Your task to perform on an android device: Go to calendar. Show me events next week Image 0: 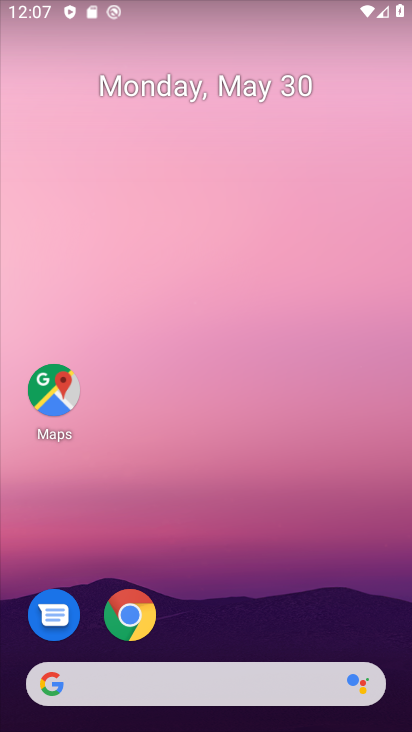
Step 0: drag from (219, 546) to (260, 78)
Your task to perform on an android device: Go to calendar. Show me events next week Image 1: 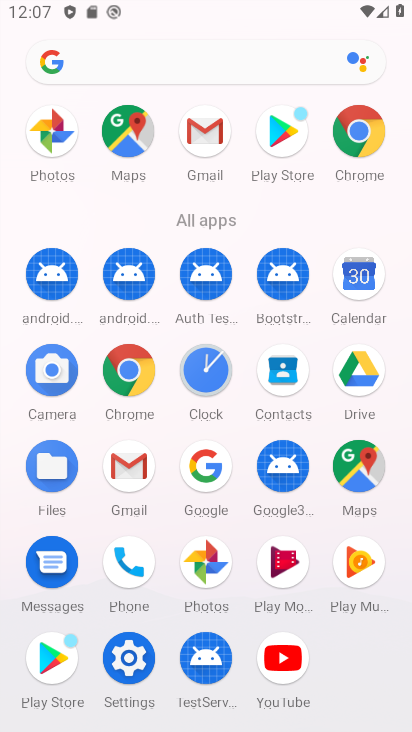
Step 1: click (367, 270)
Your task to perform on an android device: Go to calendar. Show me events next week Image 2: 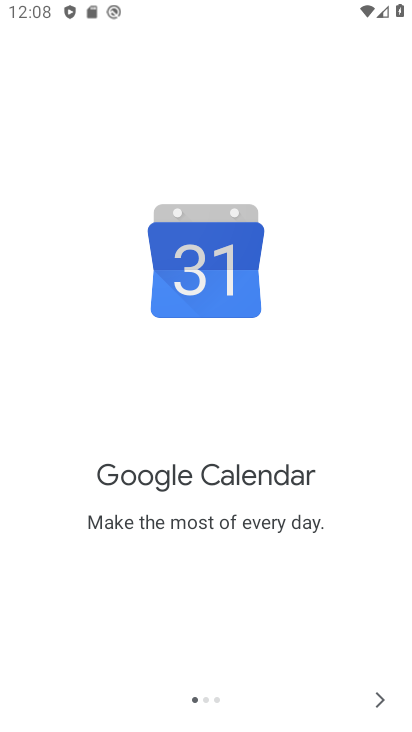
Step 2: click (383, 702)
Your task to perform on an android device: Go to calendar. Show me events next week Image 3: 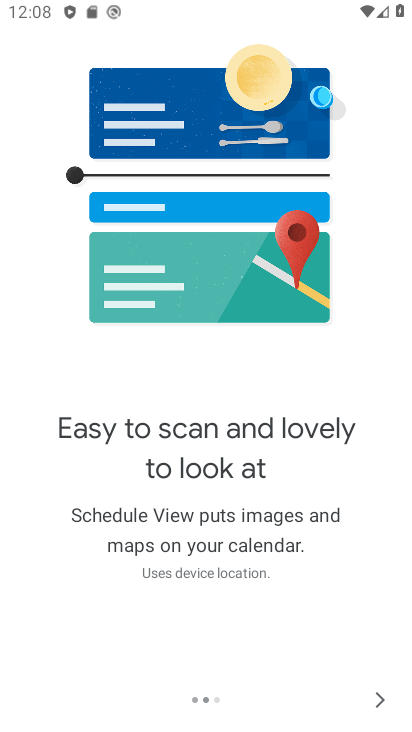
Step 3: click (383, 702)
Your task to perform on an android device: Go to calendar. Show me events next week Image 4: 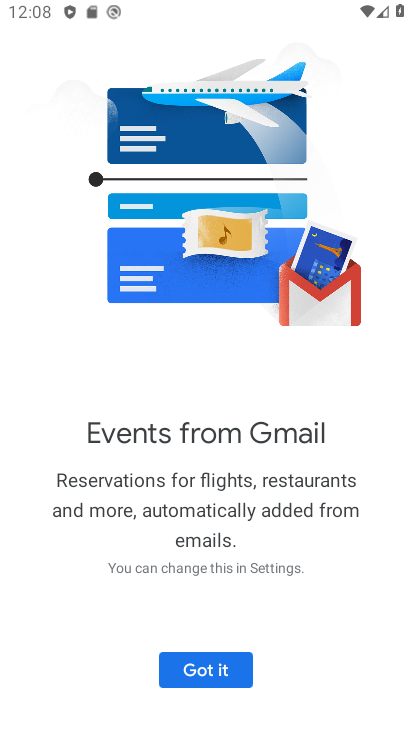
Step 4: click (219, 654)
Your task to perform on an android device: Go to calendar. Show me events next week Image 5: 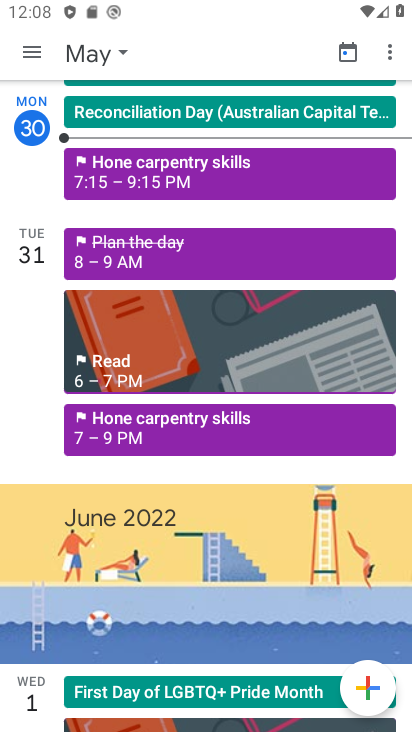
Step 5: click (104, 49)
Your task to perform on an android device: Go to calendar. Show me events next week Image 6: 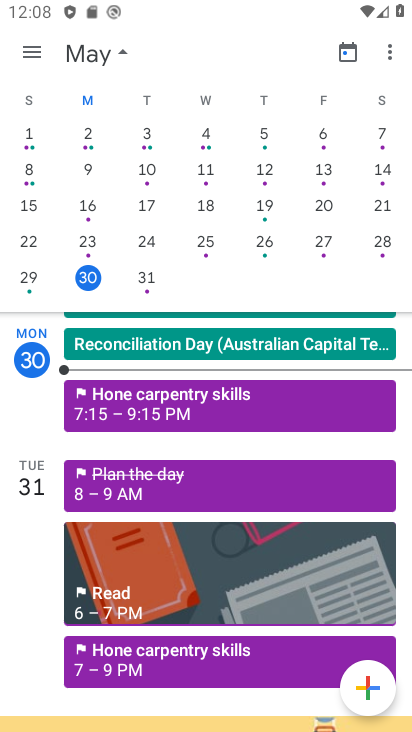
Step 6: drag from (362, 219) to (23, 165)
Your task to perform on an android device: Go to calendar. Show me events next week Image 7: 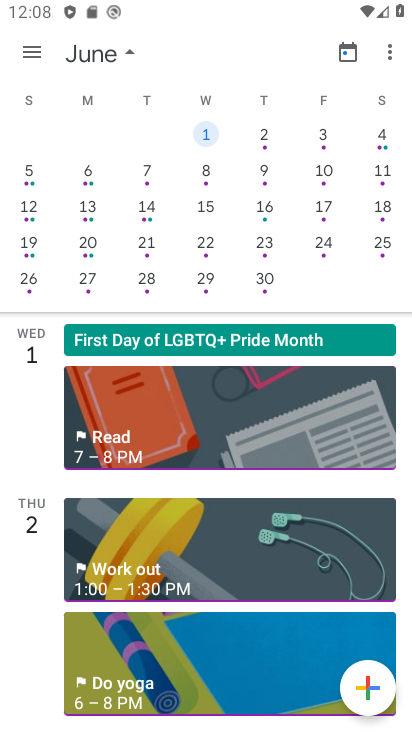
Step 7: click (91, 168)
Your task to perform on an android device: Go to calendar. Show me events next week Image 8: 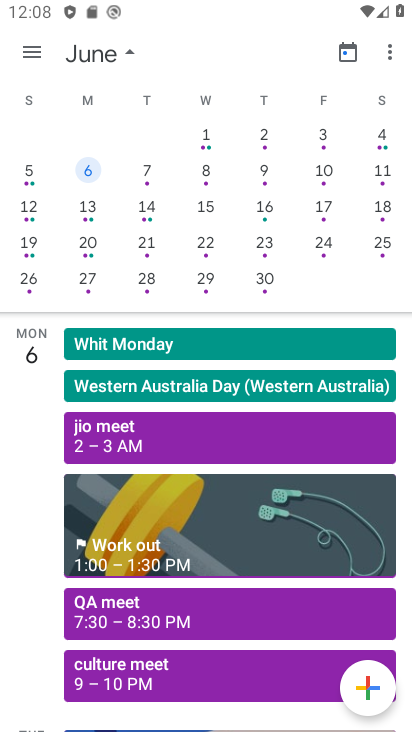
Step 8: click (154, 344)
Your task to perform on an android device: Go to calendar. Show me events next week Image 9: 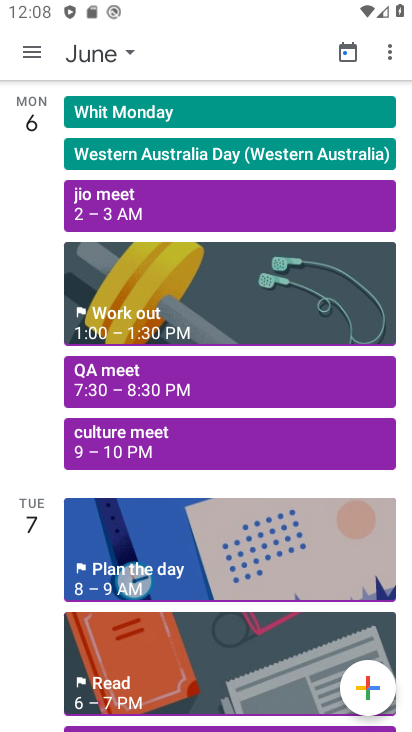
Step 9: task complete